Your task to perform on an android device: turn off javascript in the chrome app Image 0: 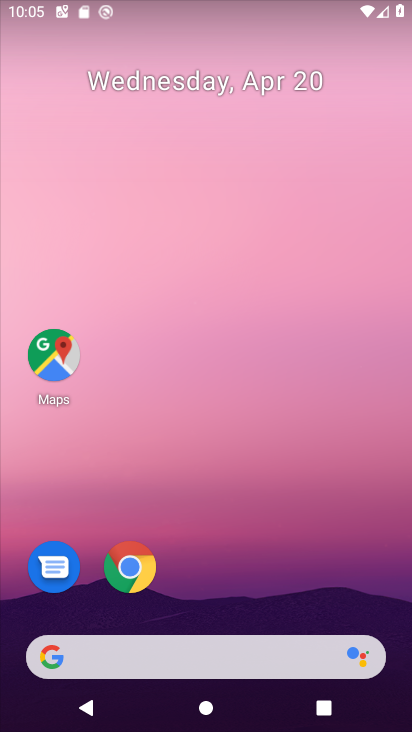
Step 0: drag from (330, 576) to (339, 239)
Your task to perform on an android device: turn off javascript in the chrome app Image 1: 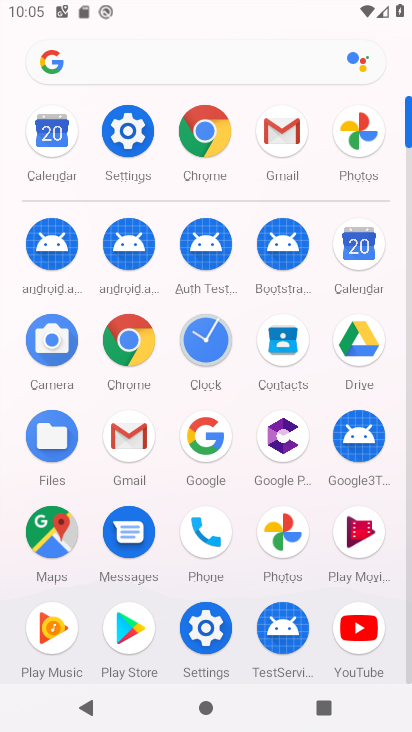
Step 1: click (136, 347)
Your task to perform on an android device: turn off javascript in the chrome app Image 2: 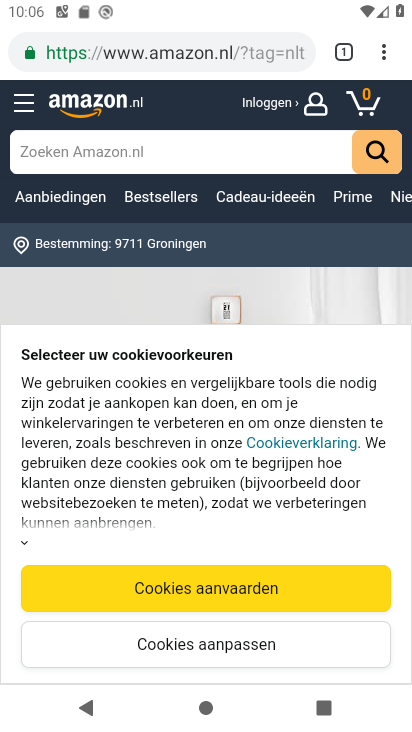
Step 2: click (381, 56)
Your task to perform on an android device: turn off javascript in the chrome app Image 3: 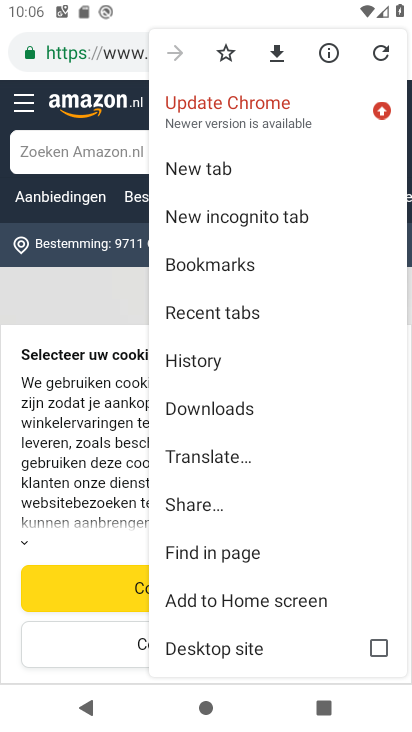
Step 3: drag from (351, 478) to (342, 265)
Your task to perform on an android device: turn off javascript in the chrome app Image 4: 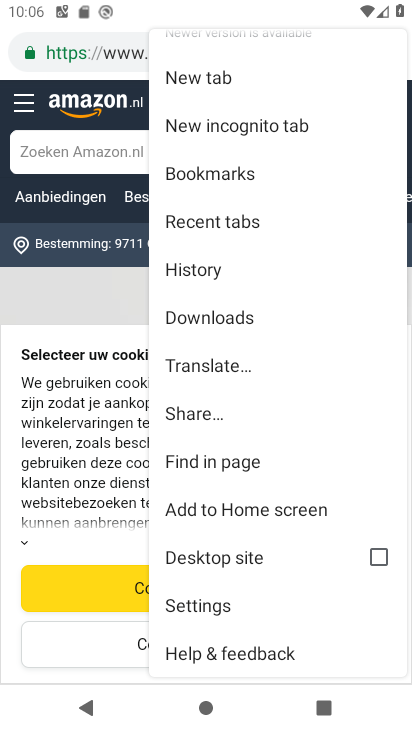
Step 4: click (229, 605)
Your task to perform on an android device: turn off javascript in the chrome app Image 5: 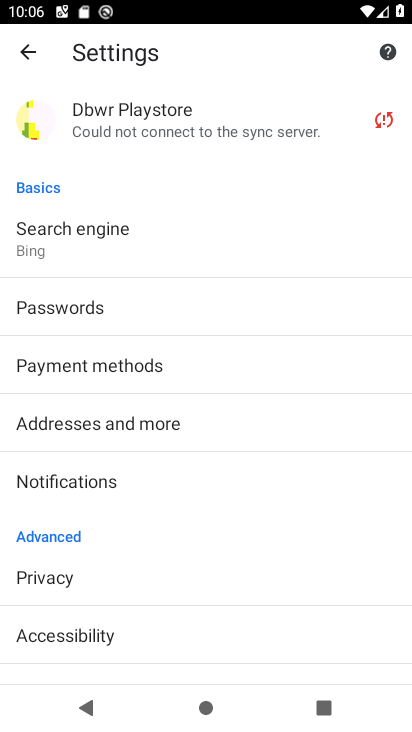
Step 5: drag from (296, 597) to (299, 454)
Your task to perform on an android device: turn off javascript in the chrome app Image 6: 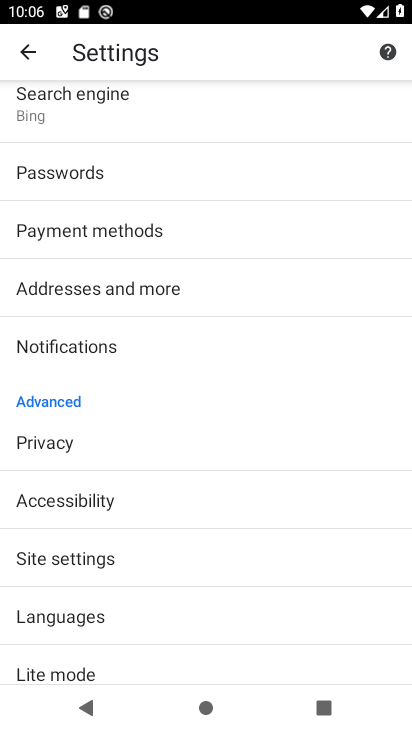
Step 6: drag from (285, 557) to (297, 421)
Your task to perform on an android device: turn off javascript in the chrome app Image 7: 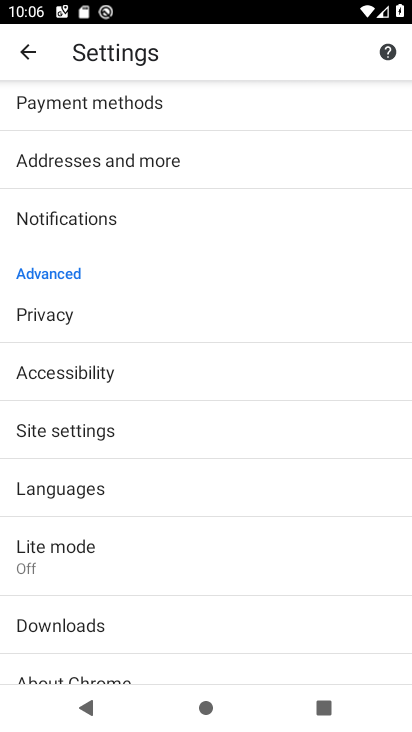
Step 7: drag from (287, 524) to (295, 472)
Your task to perform on an android device: turn off javascript in the chrome app Image 8: 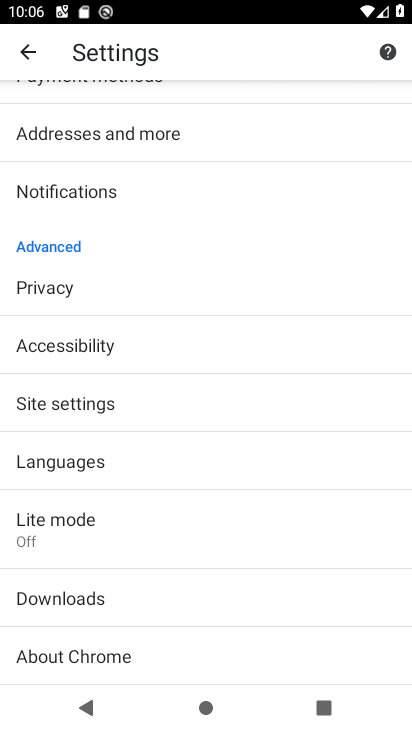
Step 8: drag from (275, 309) to (288, 379)
Your task to perform on an android device: turn off javascript in the chrome app Image 9: 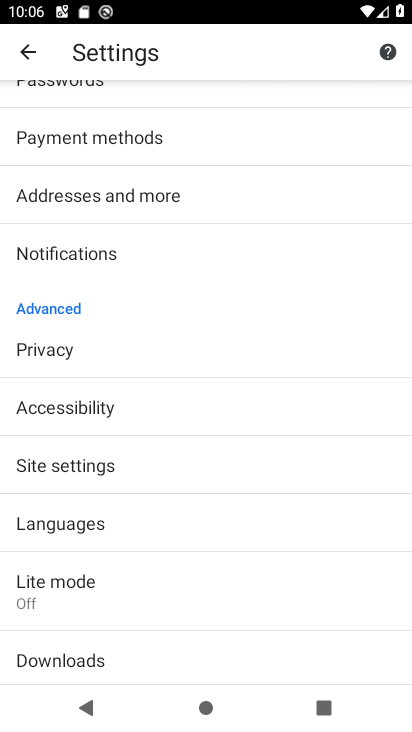
Step 9: click (300, 346)
Your task to perform on an android device: turn off javascript in the chrome app Image 10: 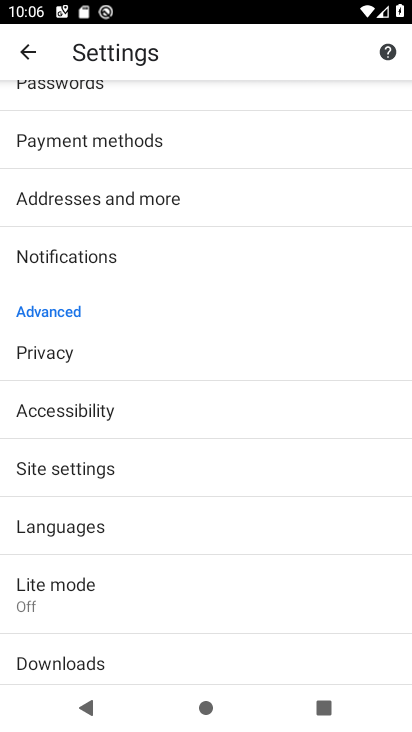
Step 10: drag from (303, 340) to (298, 383)
Your task to perform on an android device: turn off javascript in the chrome app Image 11: 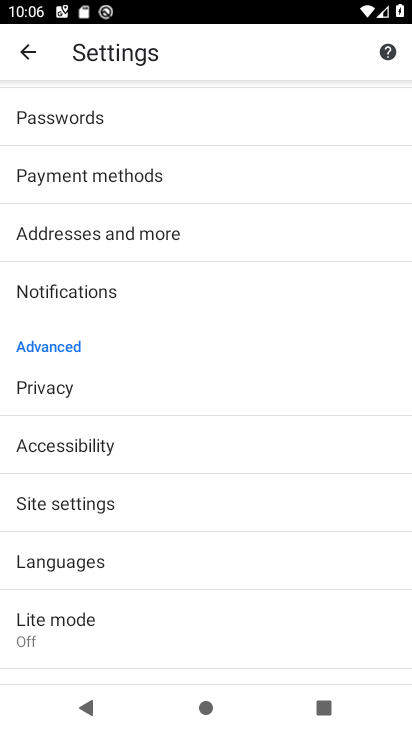
Step 11: drag from (311, 321) to (310, 471)
Your task to perform on an android device: turn off javascript in the chrome app Image 12: 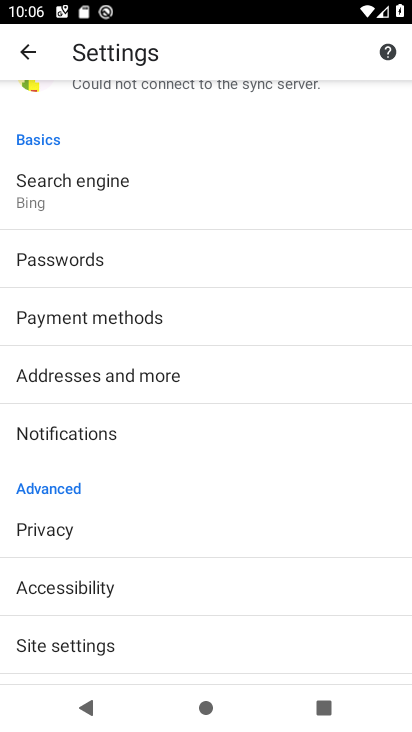
Step 12: drag from (311, 380) to (314, 429)
Your task to perform on an android device: turn off javascript in the chrome app Image 13: 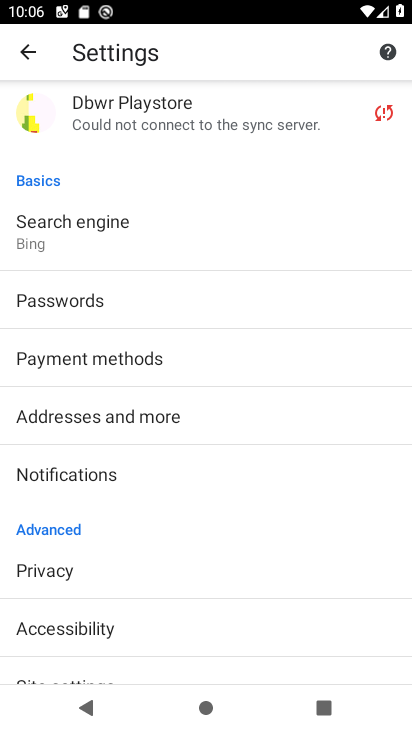
Step 13: drag from (212, 576) to (240, 452)
Your task to perform on an android device: turn off javascript in the chrome app Image 14: 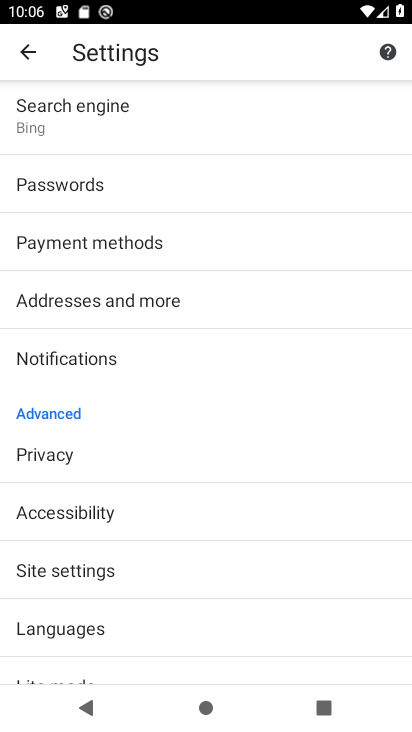
Step 14: click (225, 560)
Your task to perform on an android device: turn off javascript in the chrome app Image 15: 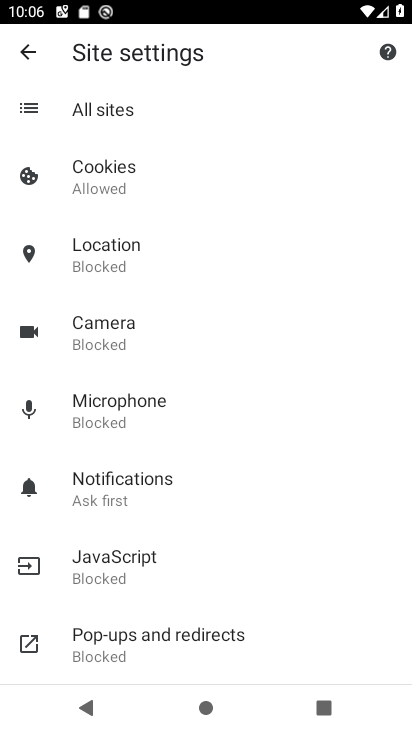
Step 15: click (144, 566)
Your task to perform on an android device: turn off javascript in the chrome app Image 16: 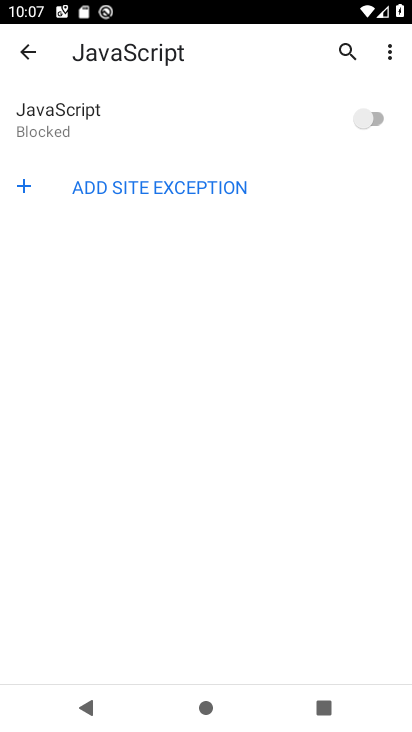
Step 16: task complete